Your task to perform on an android device: turn on sleep mode Image 0: 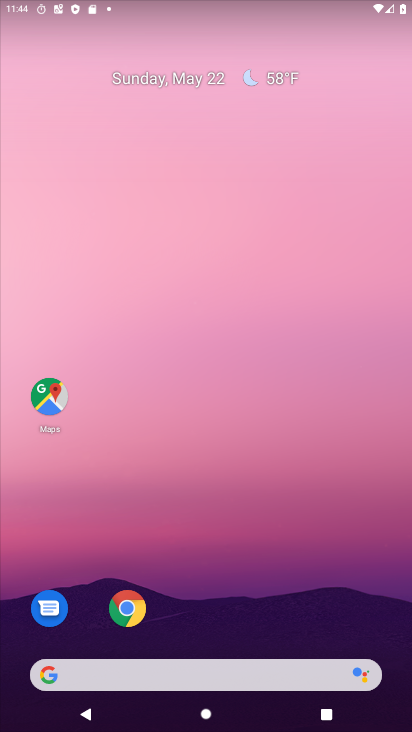
Step 0: drag from (257, 7) to (209, 434)
Your task to perform on an android device: turn on sleep mode Image 1: 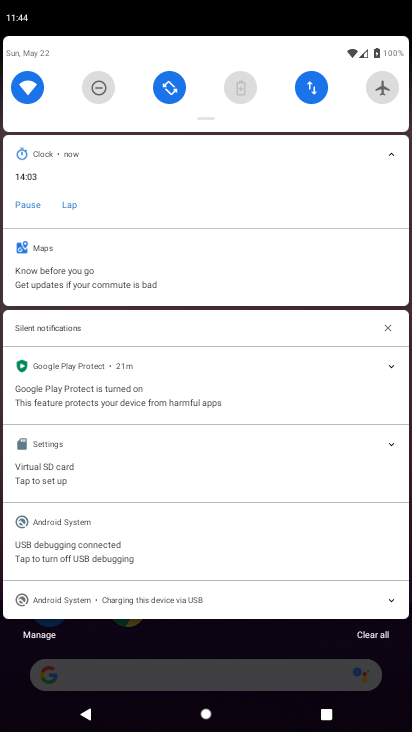
Step 1: press home button
Your task to perform on an android device: turn on sleep mode Image 2: 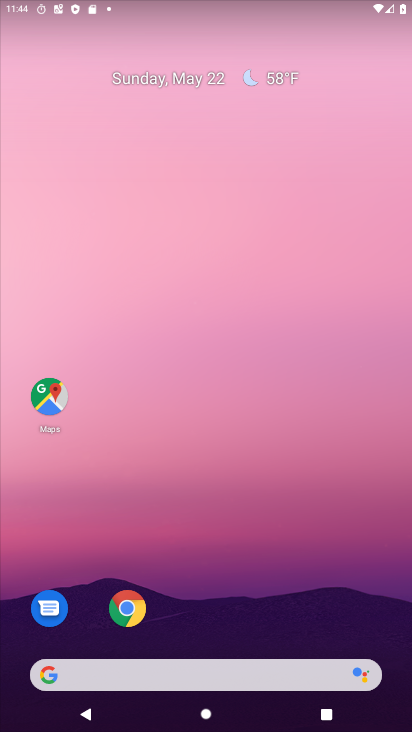
Step 2: drag from (245, 598) to (198, 178)
Your task to perform on an android device: turn on sleep mode Image 3: 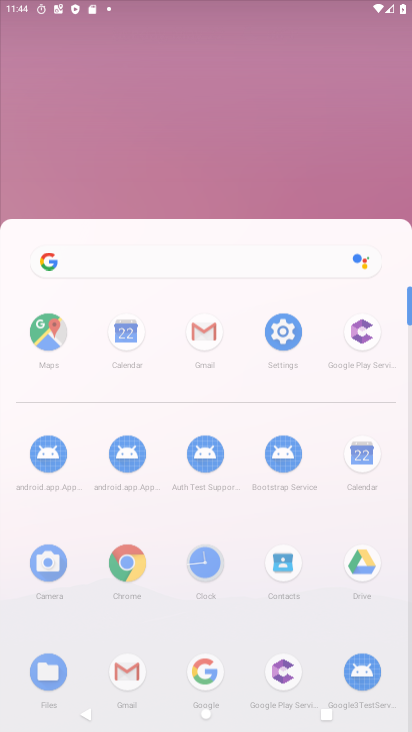
Step 3: drag from (198, 178) to (198, 68)
Your task to perform on an android device: turn on sleep mode Image 4: 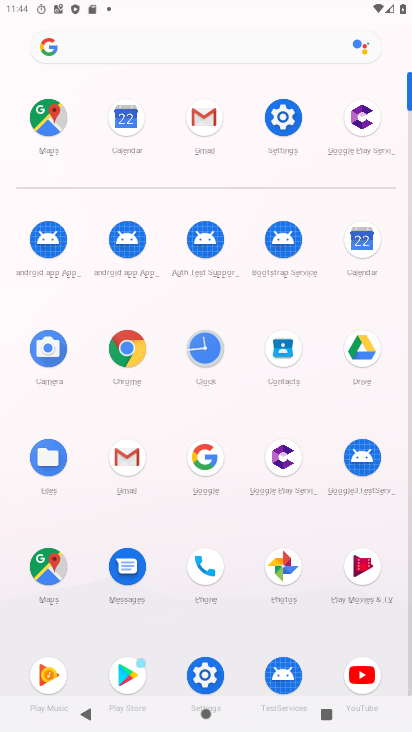
Step 4: click (289, 127)
Your task to perform on an android device: turn on sleep mode Image 5: 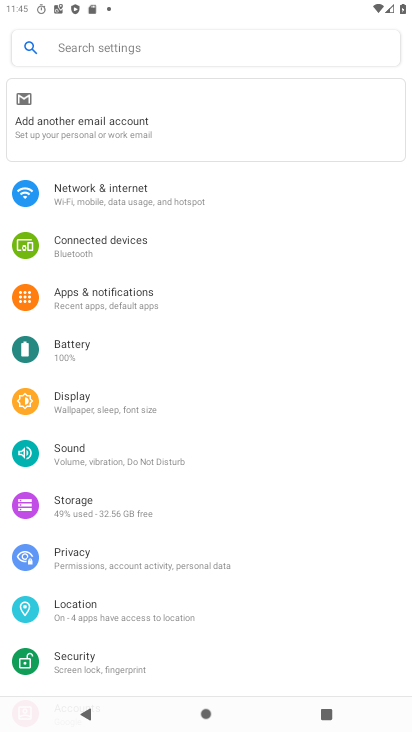
Step 5: click (149, 409)
Your task to perform on an android device: turn on sleep mode Image 6: 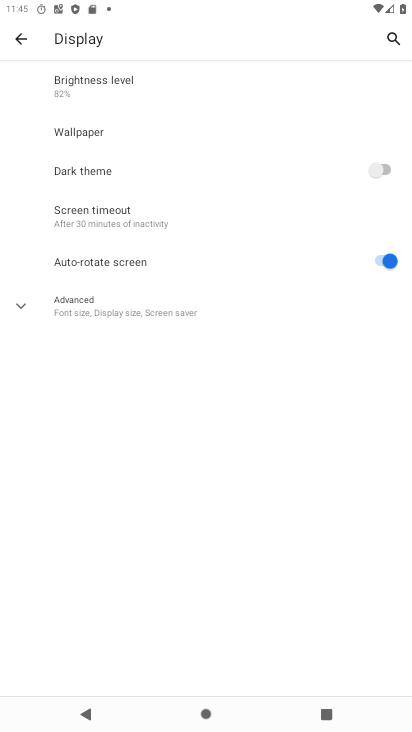
Step 6: click (181, 302)
Your task to perform on an android device: turn on sleep mode Image 7: 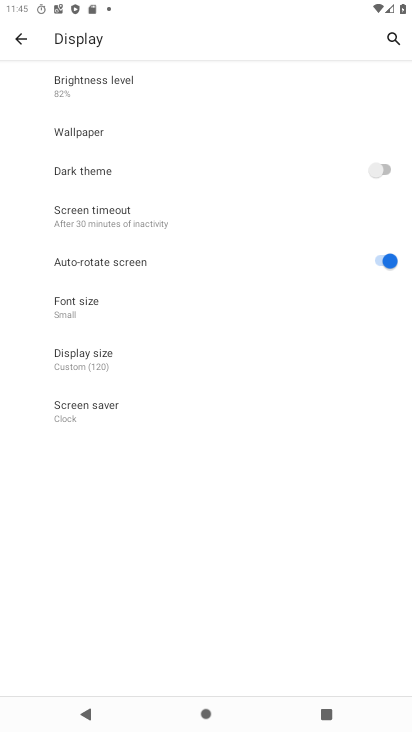
Step 7: task complete